Your task to perform on an android device: Is it going to rain this weekend? Image 0: 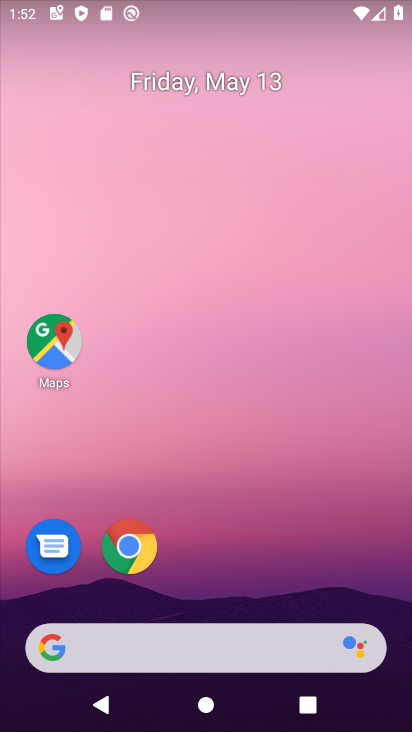
Step 0: drag from (257, 492) to (377, 8)
Your task to perform on an android device: Is it going to rain this weekend? Image 1: 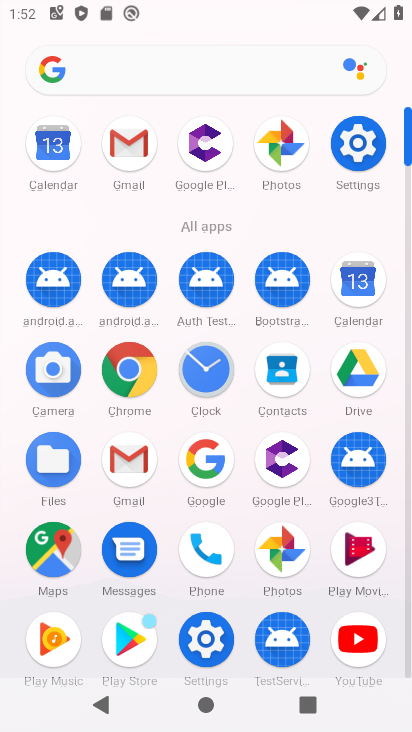
Step 1: click (121, 363)
Your task to perform on an android device: Is it going to rain this weekend? Image 2: 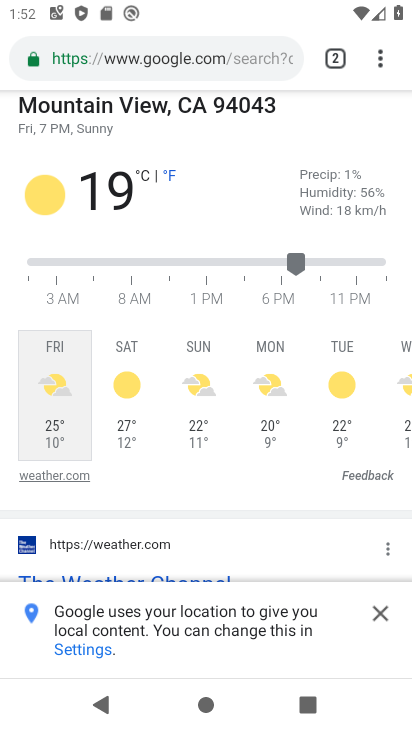
Step 2: drag from (142, 336) to (378, 366)
Your task to perform on an android device: Is it going to rain this weekend? Image 3: 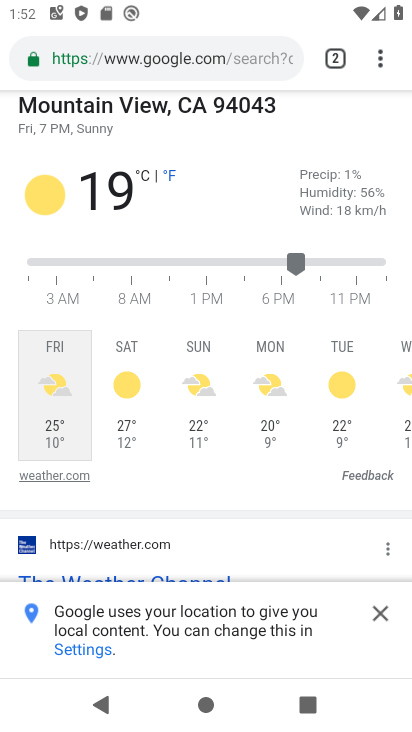
Step 3: click (80, 472)
Your task to perform on an android device: Is it going to rain this weekend? Image 4: 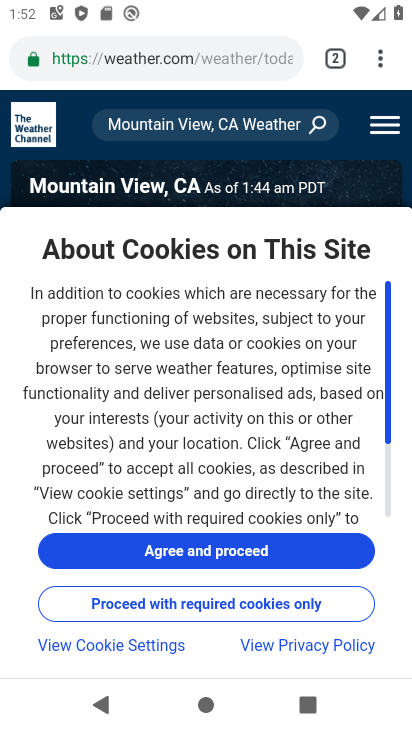
Step 4: task complete